Your task to perform on an android device: Open Google Chrome Image 0: 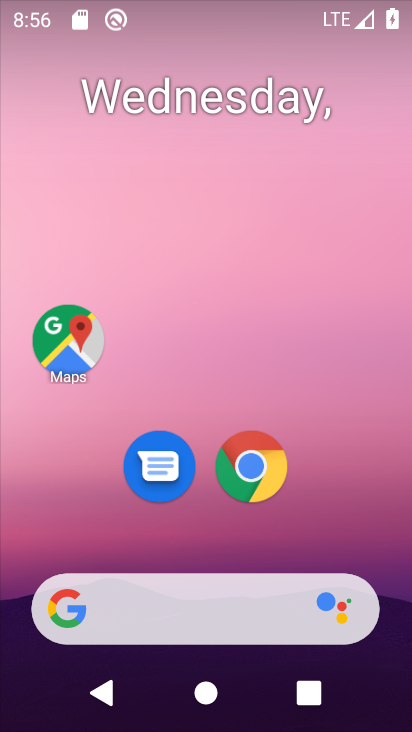
Step 0: click (261, 469)
Your task to perform on an android device: Open Google Chrome Image 1: 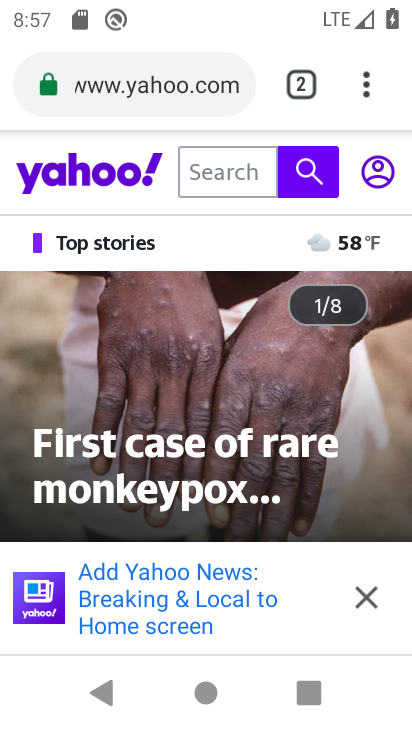
Step 1: task complete